Your task to perform on an android device: Open notification settings Image 0: 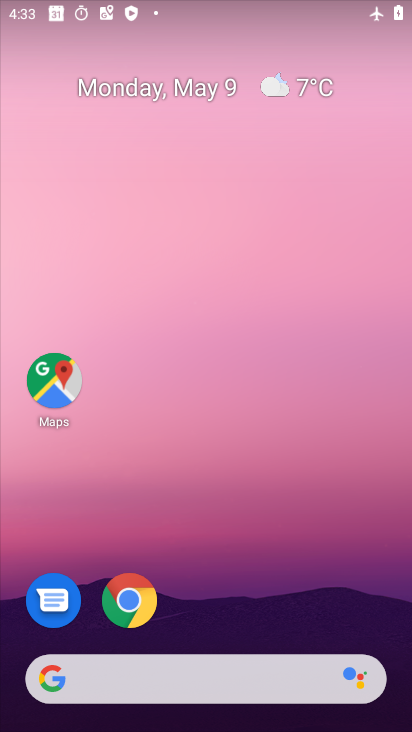
Step 0: drag from (328, 535) to (314, 21)
Your task to perform on an android device: Open notification settings Image 1: 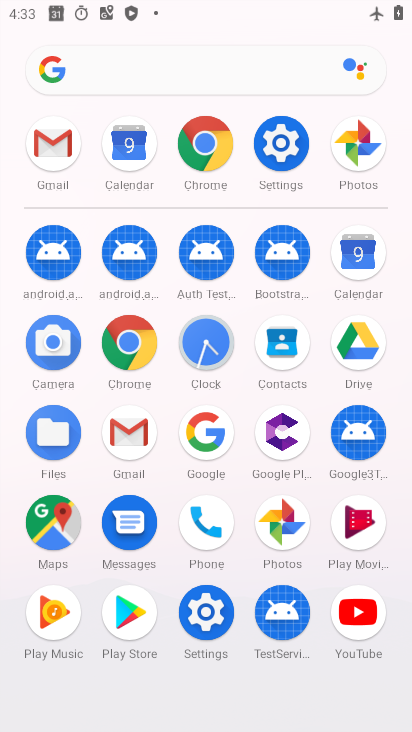
Step 1: click (284, 148)
Your task to perform on an android device: Open notification settings Image 2: 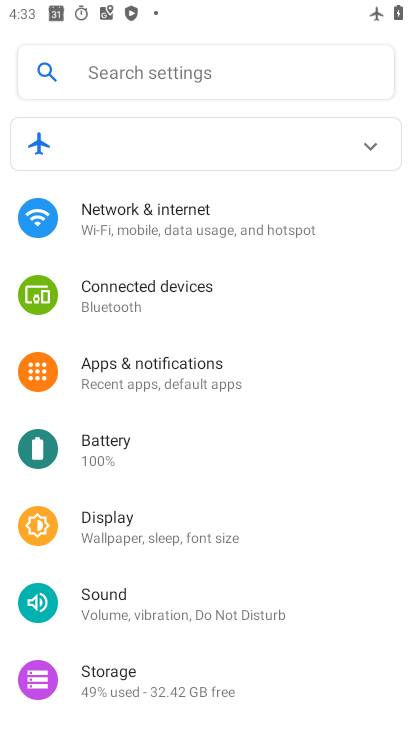
Step 2: click (167, 369)
Your task to perform on an android device: Open notification settings Image 3: 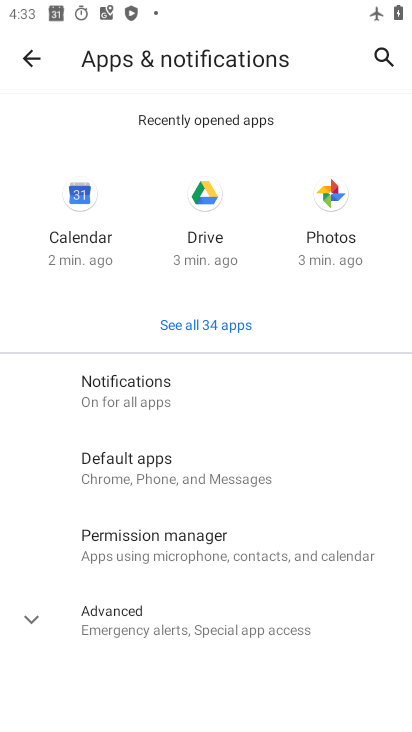
Step 3: click (152, 385)
Your task to perform on an android device: Open notification settings Image 4: 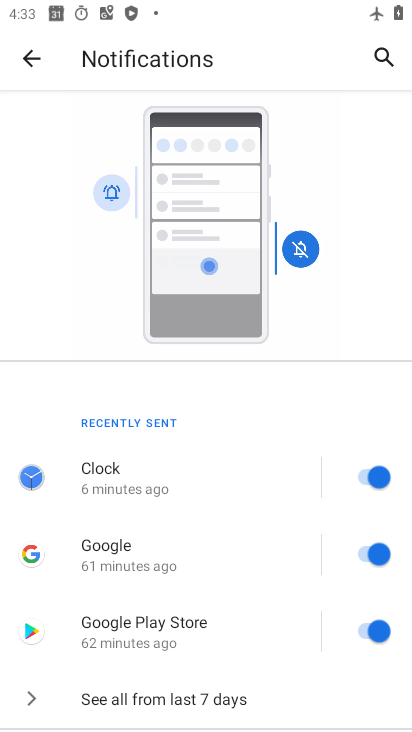
Step 4: task complete